Your task to perform on an android device: Open battery settings Image 0: 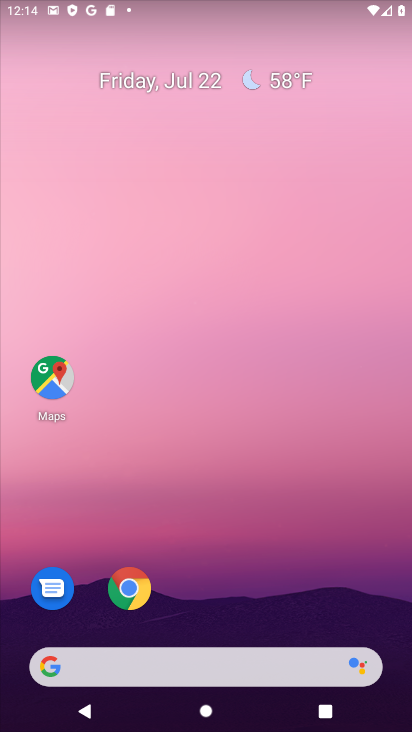
Step 0: drag from (310, 584) to (388, 7)
Your task to perform on an android device: Open battery settings Image 1: 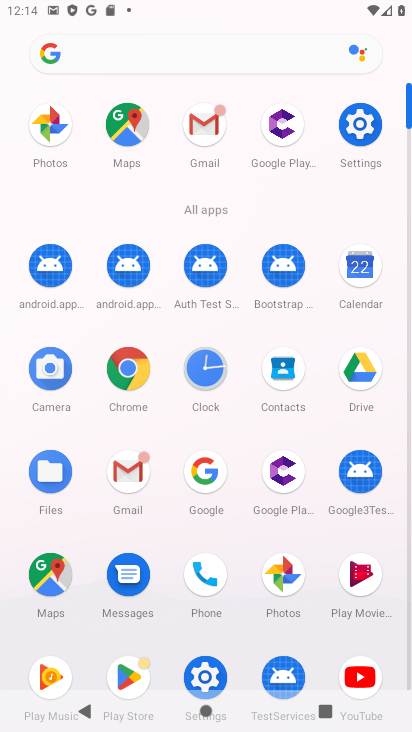
Step 1: click (360, 161)
Your task to perform on an android device: Open battery settings Image 2: 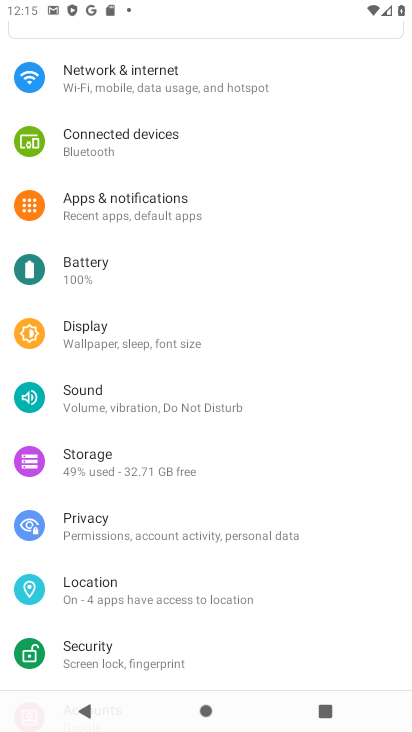
Step 2: click (106, 278)
Your task to perform on an android device: Open battery settings Image 3: 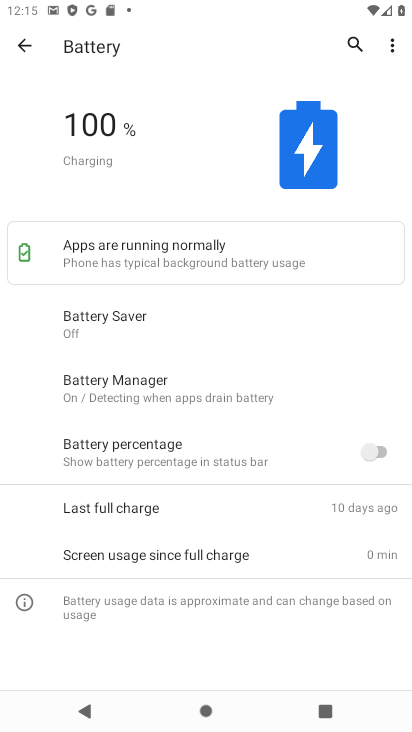
Step 3: task complete